Your task to perform on an android device: Open display settings Image 0: 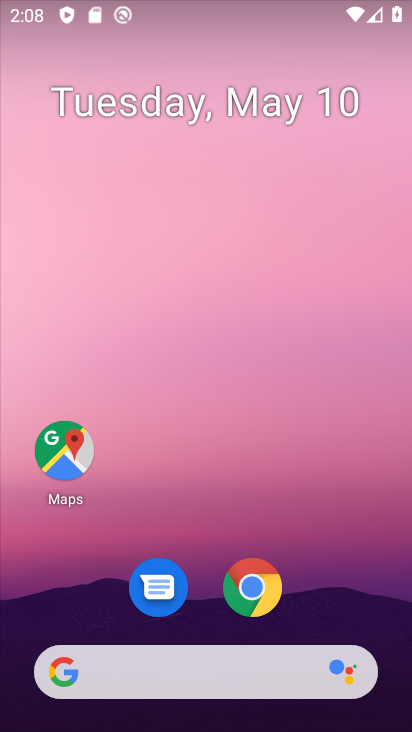
Step 0: drag from (83, 640) to (167, 94)
Your task to perform on an android device: Open display settings Image 1: 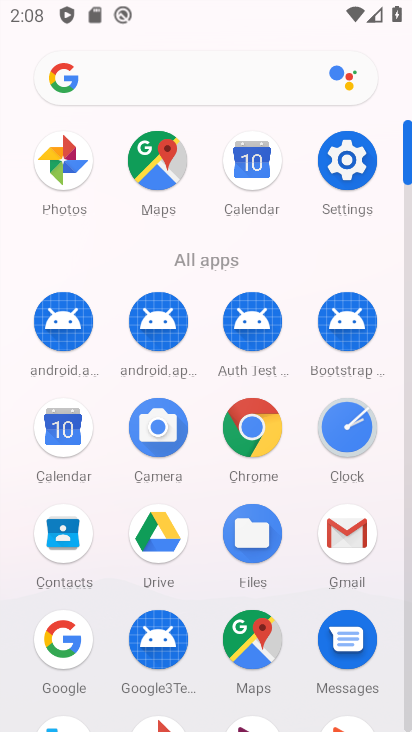
Step 1: click (349, 158)
Your task to perform on an android device: Open display settings Image 2: 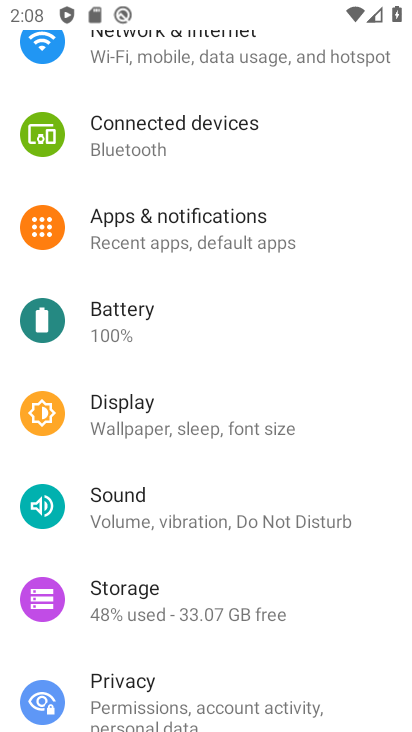
Step 2: click (162, 414)
Your task to perform on an android device: Open display settings Image 3: 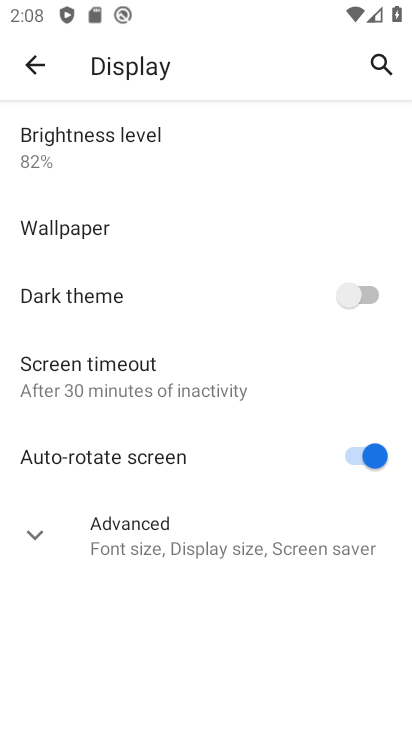
Step 3: task complete